Your task to perform on an android device: change the upload size in google photos Image 0: 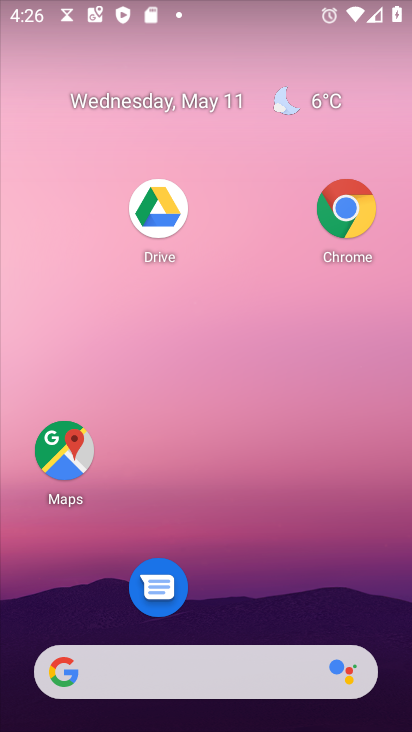
Step 0: drag from (287, 549) to (199, 180)
Your task to perform on an android device: change the upload size in google photos Image 1: 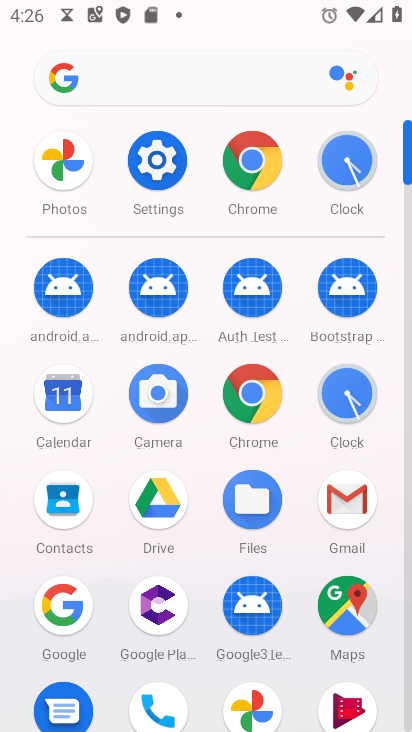
Step 1: click (63, 178)
Your task to perform on an android device: change the upload size in google photos Image 2: 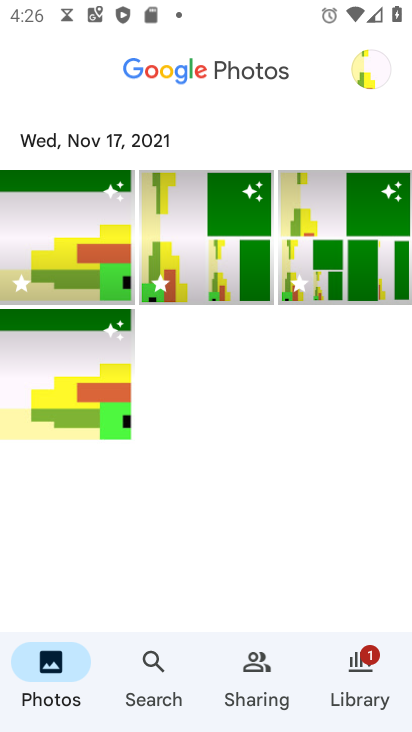
Step 2: task complete